Your task to perform on an android device: open app "Messages" (install if not already installed), go to login, and select forgot password Image 0: 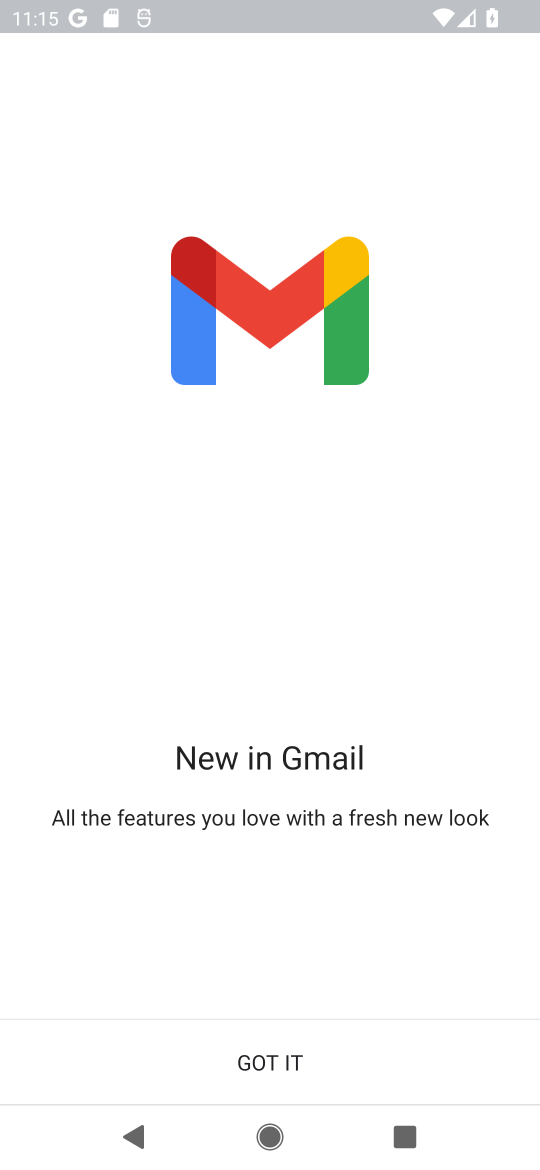
Step 0: press back button
Your task to perform on an android device: open app "Messages" (install if not already installed), go to login, and select forgot password Image 1: 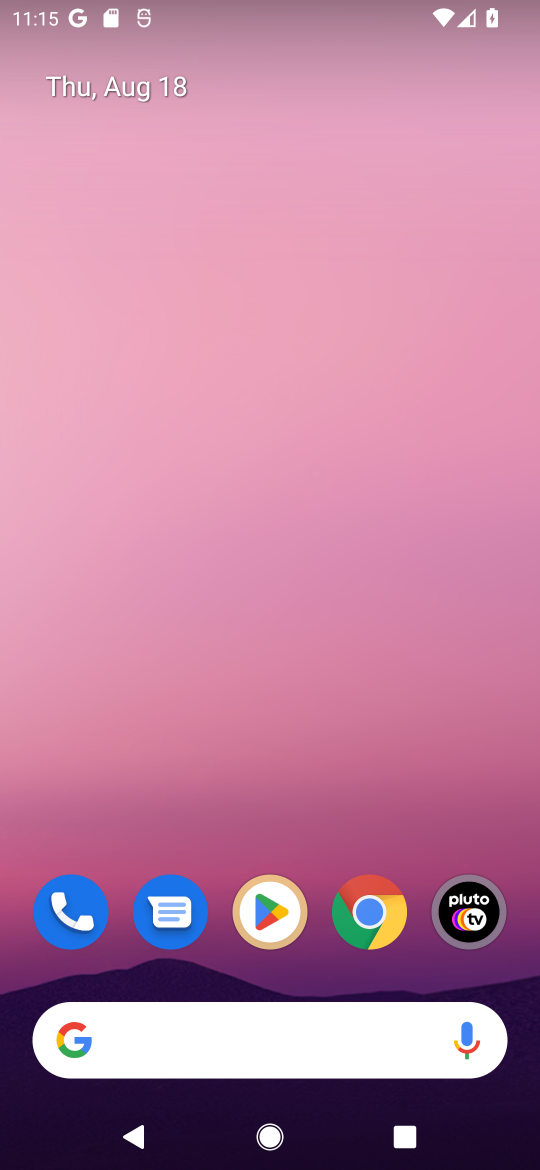
Step 1: click (279, 900)
Your task to perform on an android device: open app "Messages" (install if not already installed), go to login, and select forgot password Image 2: 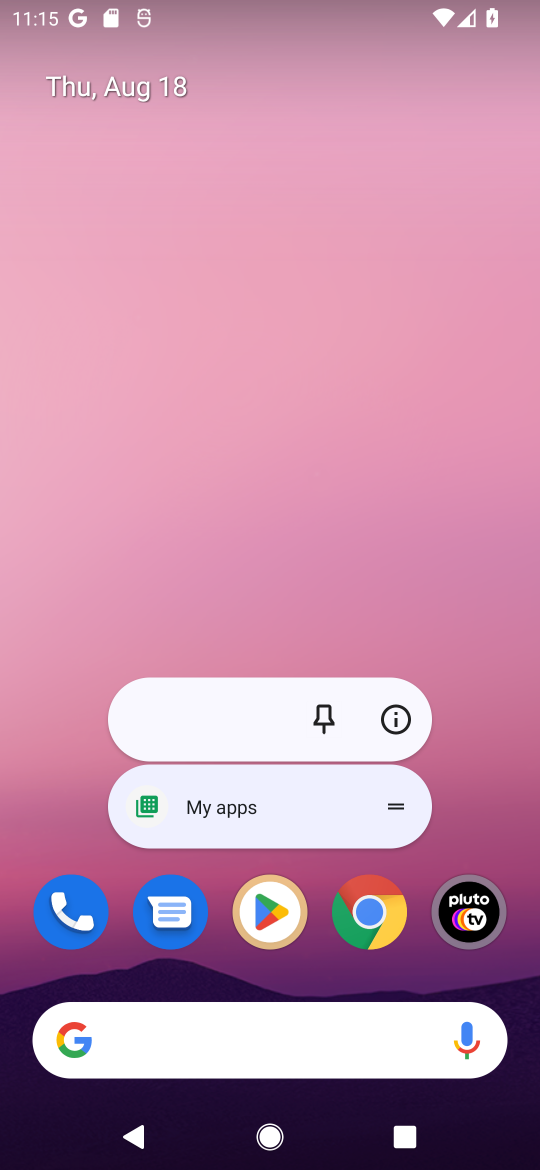
Step 2: click (256, 925)
Your task to perform on an android device: open app "Messages" (install if not already installed), go to login, and select forgot password Image 3: 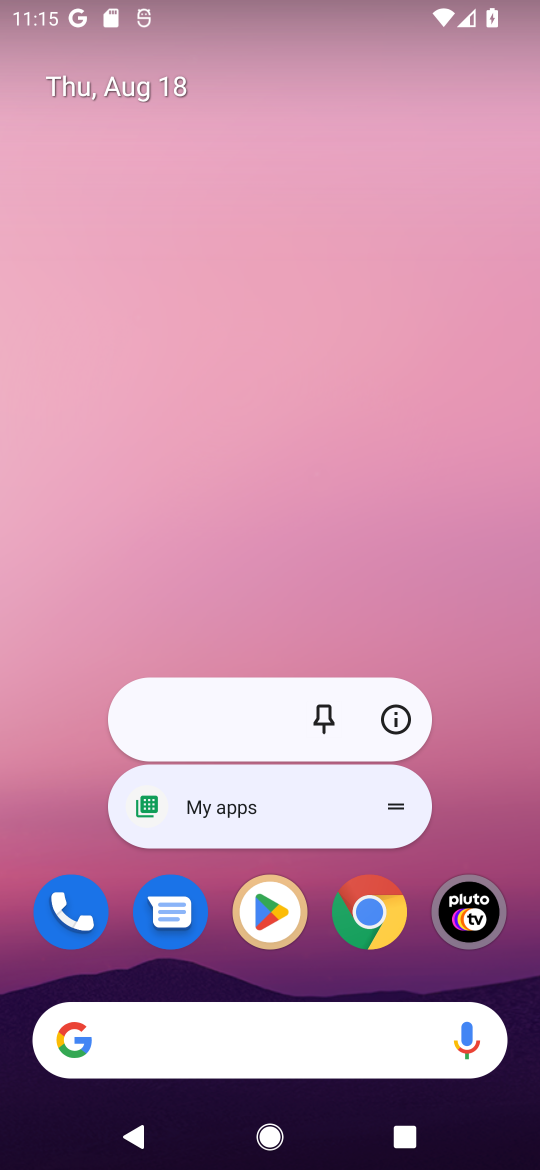
Step 3: click (267, 905)
Your task to perform on an android device: open app "Messages" (install if not already installed), go to login, and select forgot password Image 4: 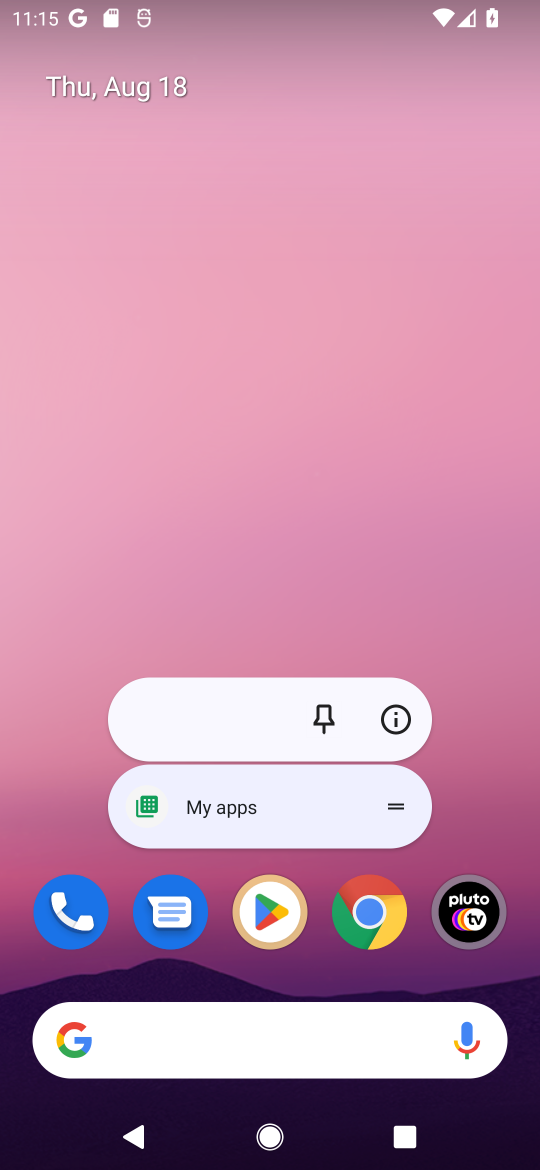
Step 4: click (263, 918)
Your task to perform on an android device: open app "Messages" (install if not already installed), go to login, and select forgot password Image 5: 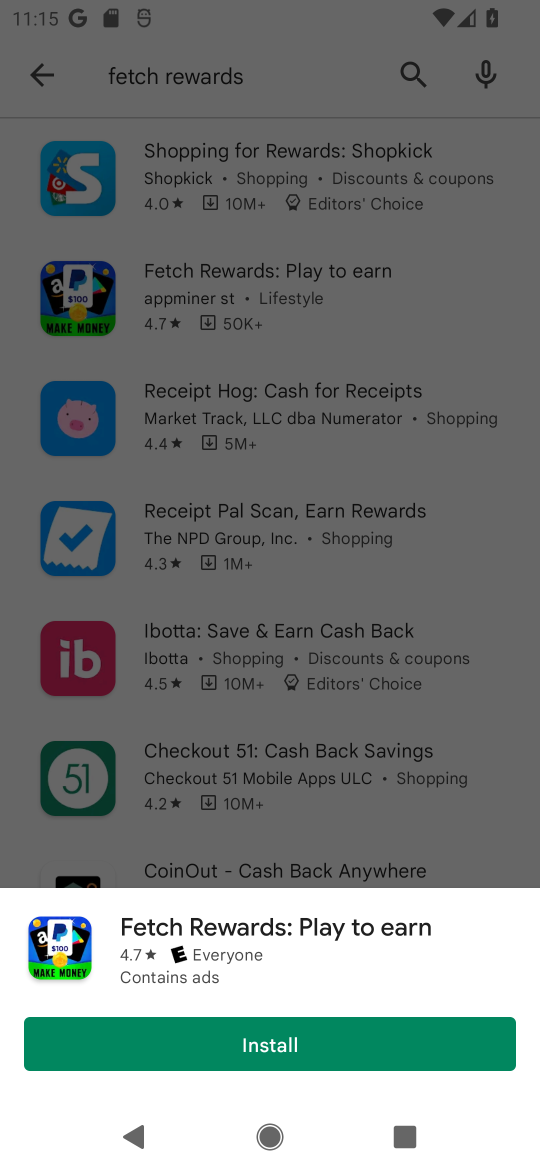
Step 5: click (353, 223)
Your task to perform on an android device: open app "Messages" (install if not already installed), go to login, and select forgot password Image 6: 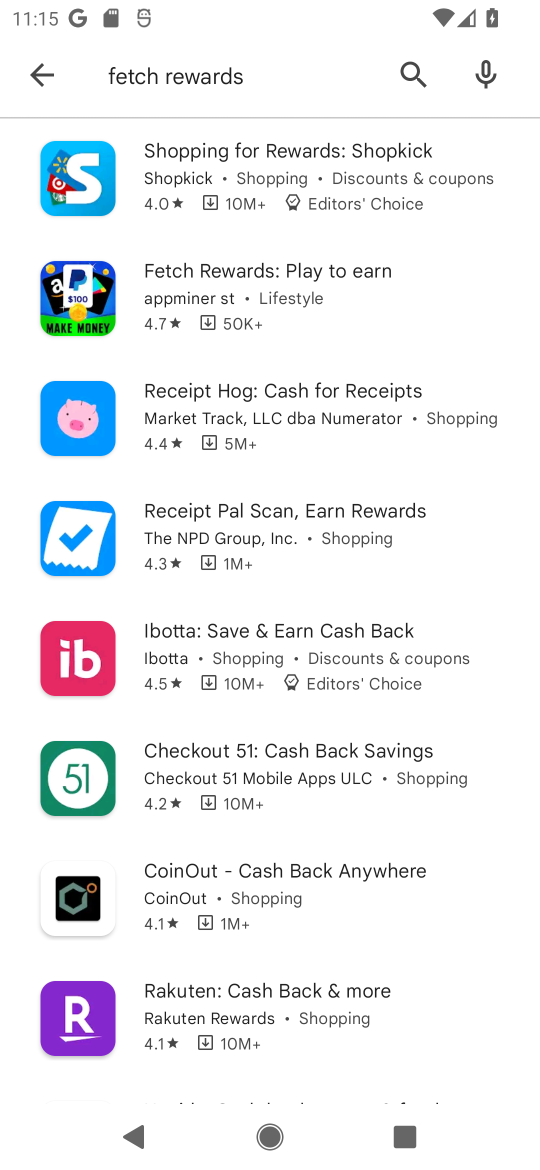
Step 6: click (407, 90)
Your task to perform on an android device: open app "Messages" (install if not already installed), go to login, and select forgot password Image 7: 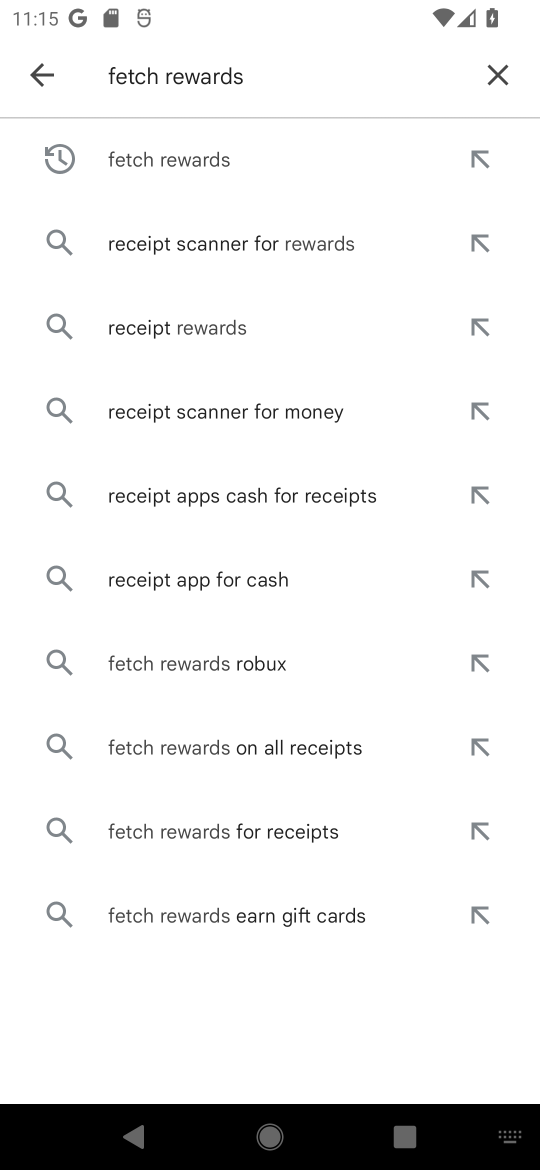
Step 7: click (510, 78)
Your task to perform on an android device: open app "Messages" (install if not already installed), go to login, and select forgot password Image 8: 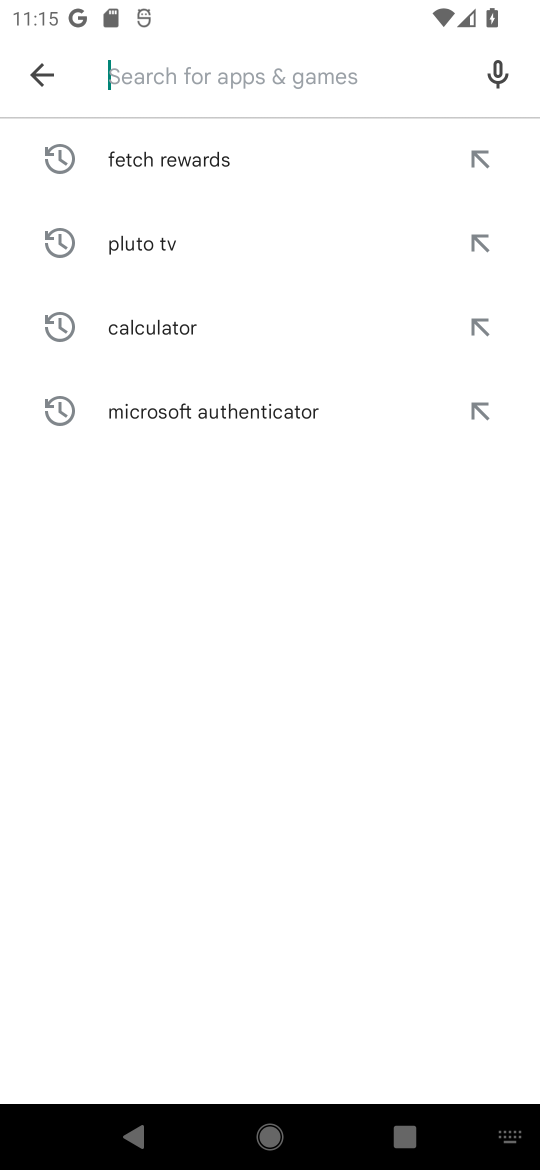
Step 8: click (208, 74)
Your task to perform on an android device: open app "Messages" (install if not already installed), go to login, and select forgot password Image 9: 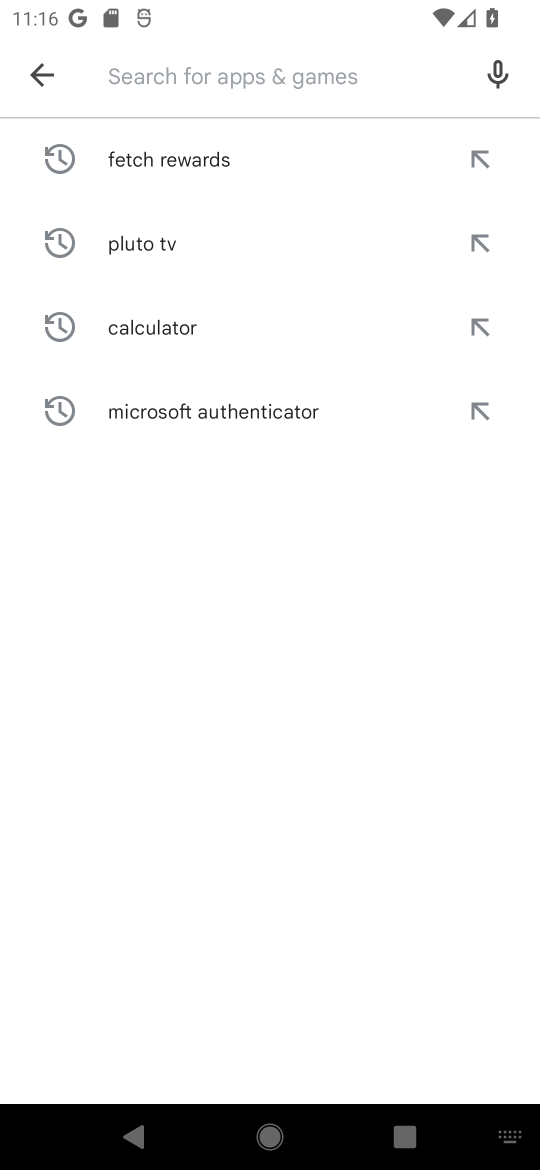
Step 9: type "Messages"
Your task to perform on an android device: open app "Messages" (install if not already installed), go to login, and select forgot password Image 10: 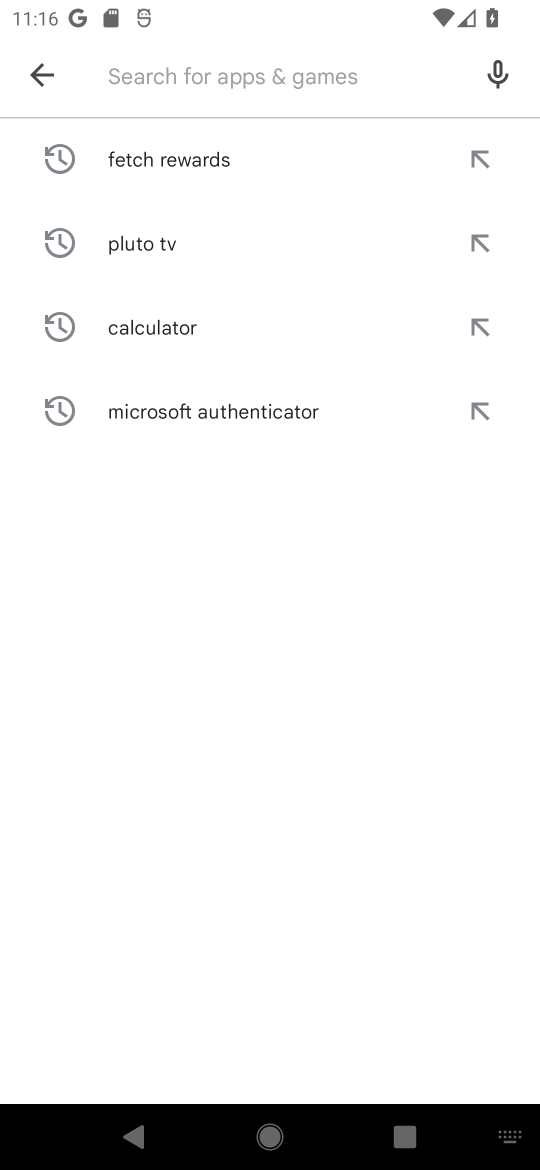
Step 10: click (335, 747)
Your task to perform on an android device: open app "Messages" (install if not already installed), go to login, and select forgot password Image 11: 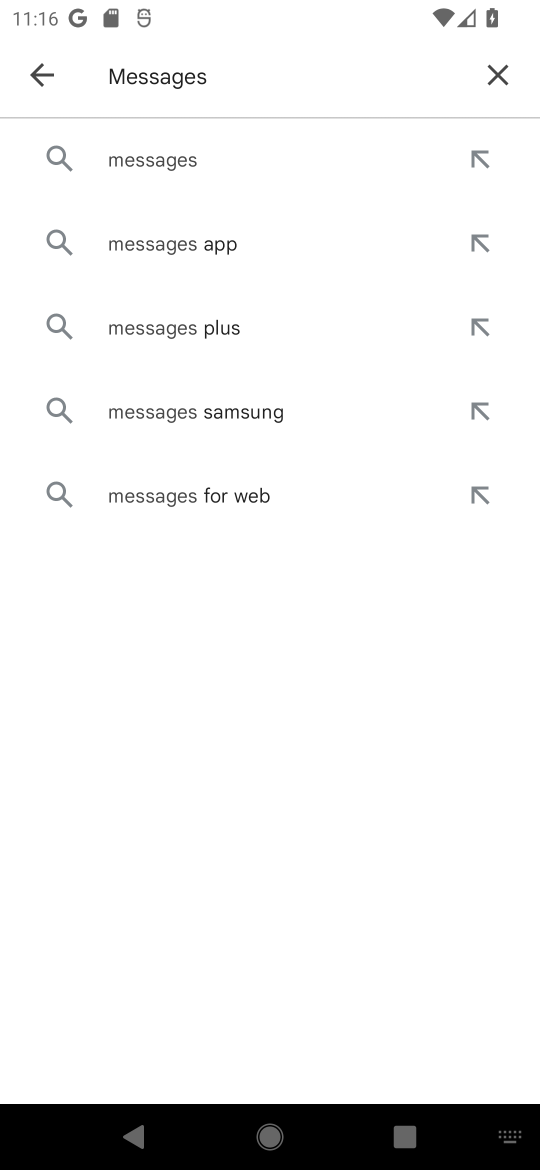
Step 11: click (205, 169)
Your task to perform on an android device: open app "Messages" (install if not already installed), go to login, and select forgot password Image 12: 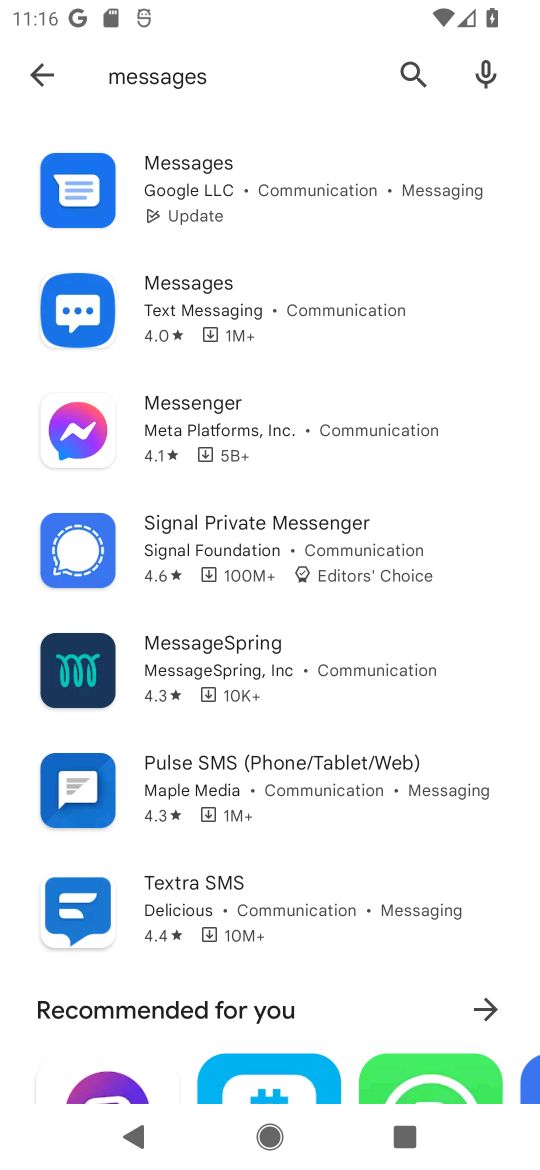
Step 12: click (202, 175)
Your task to perform on an android device: open app "Messages" (install if not already installed), go to login, and select forgot password Image 13: 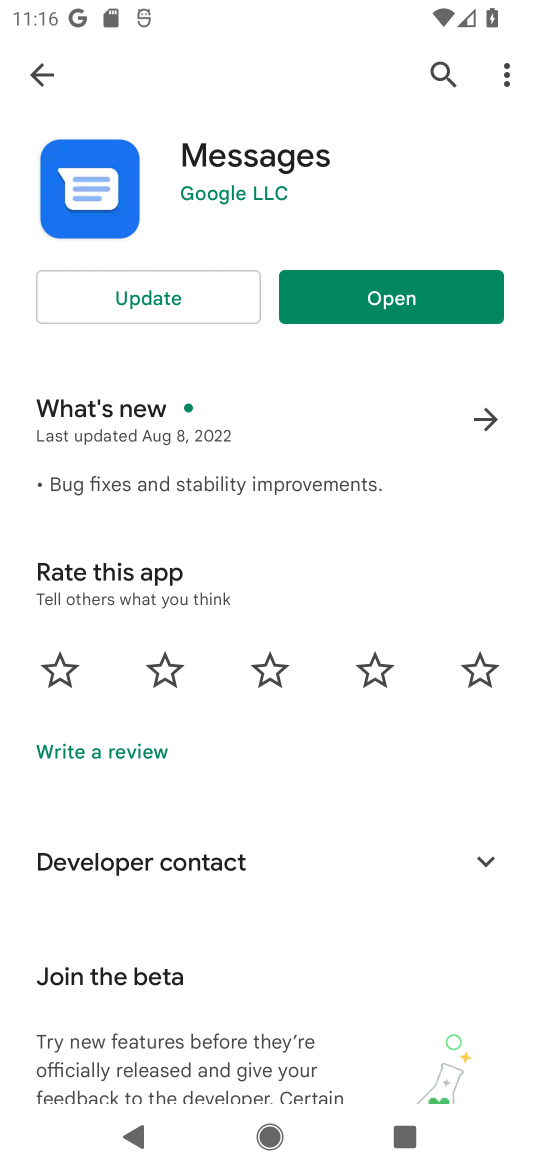
Step 13: click (412, 298)
Your task to perform on an android device: open app "Messages" (install if not already installed), go to login, and select forgot password Image 14: 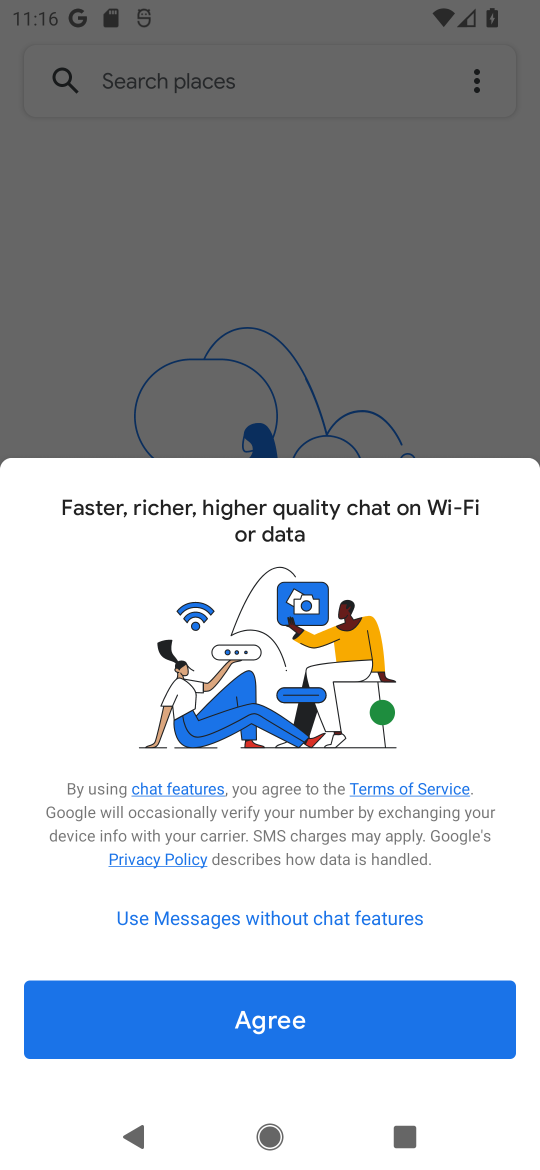
Step 14: click (229, 1039)
Your task to perform on an android device: open app "Messages" (install if not already installed), go to login, and select forgot password Image 15: 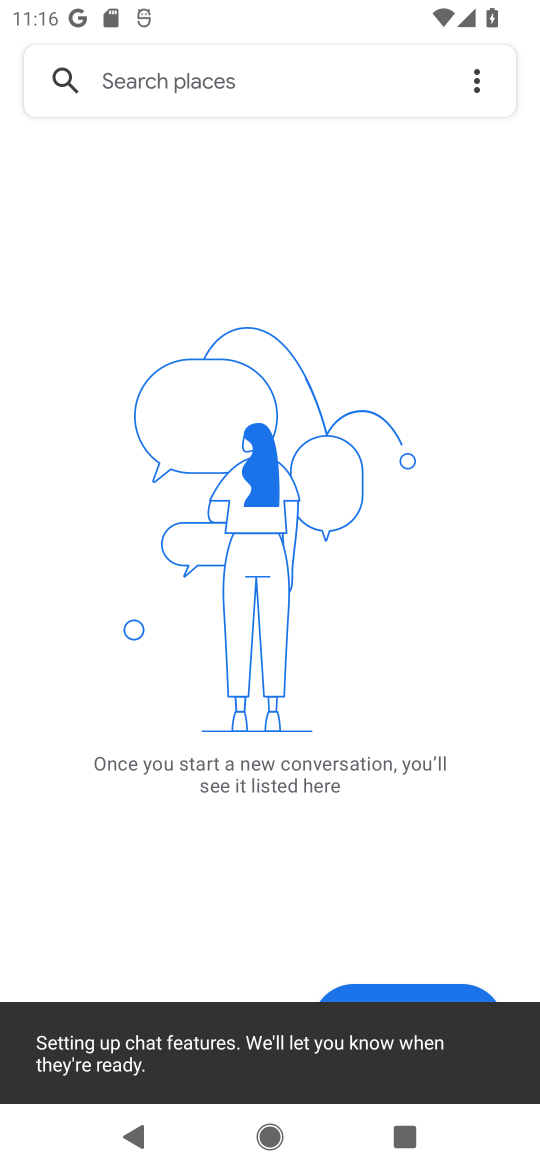
Step 15: click (472, 93)
Your task to perform on an android device: open app "Messages" (install if not already installed), go to login, and select forgot password Image 16: 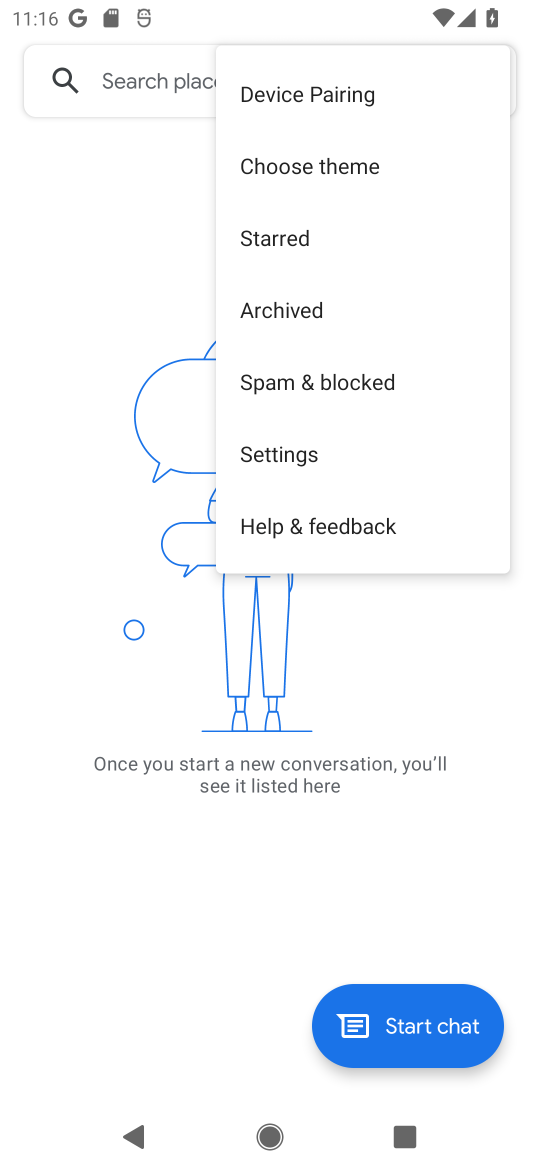
Step 16: click (126, 752)
Your task to perform on an android device: open app "Messages" (install if not already installed), go to login, and select forgot password Image 17: 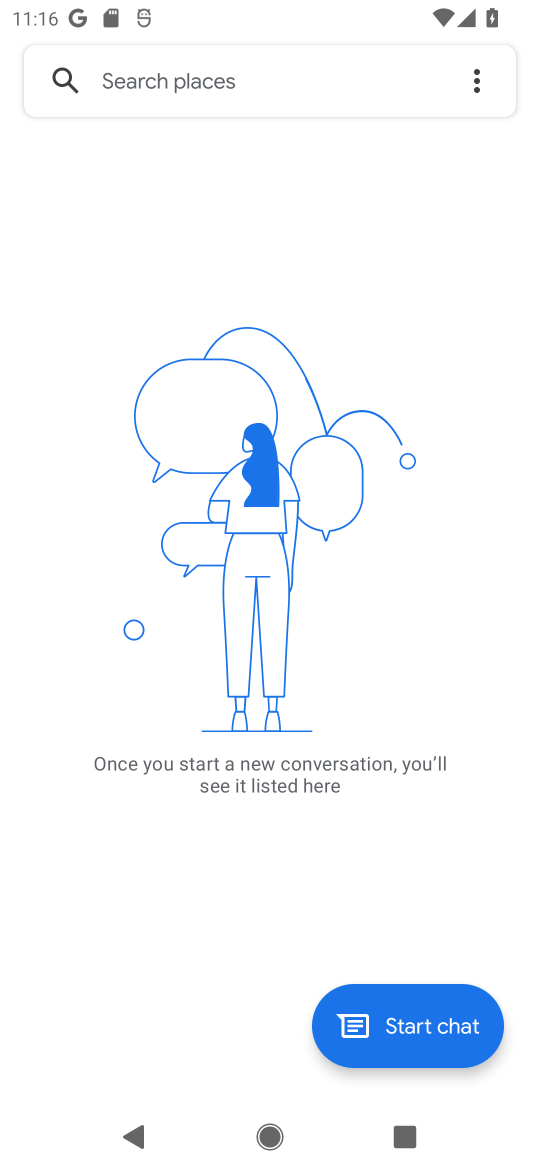
Step 17: task complete